Your task to perform on an android device: Open Chrome and go to settings Image 0: 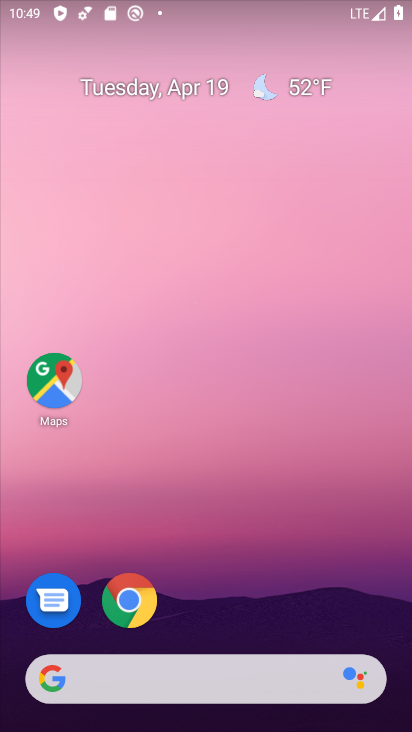
Step 0: drag from (256, 625) to (208, 79)
Your task to perform on an android device: Open Chrome and go to settings Image 1: 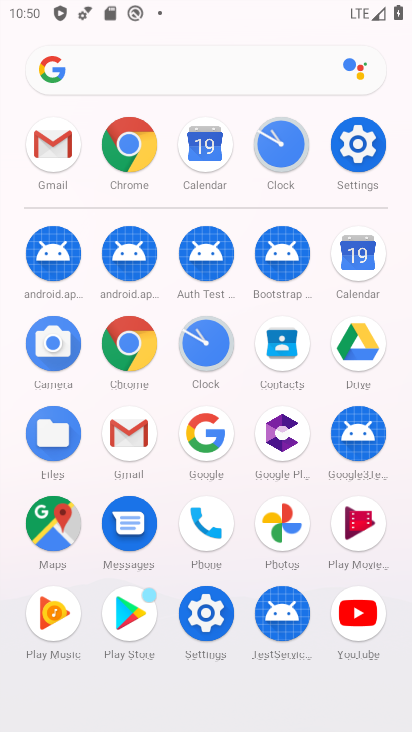
Step 1: click (131, 146)
Your task to perform on an android device: Open Chrome and go to settings Image 2: 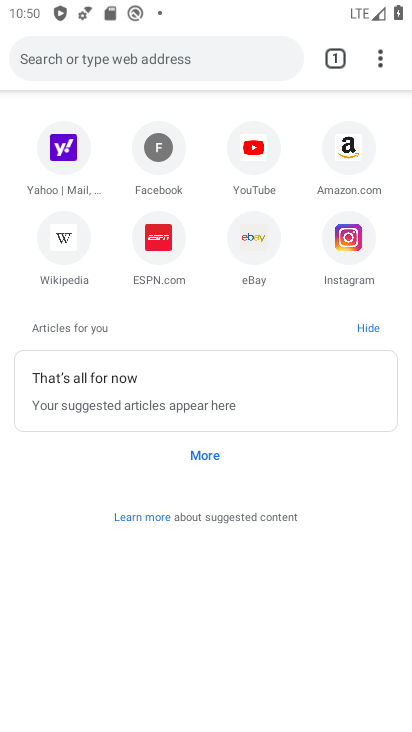
Step 2: click (375, 55)
Your task to perform on an android device: Open Chrome and go to settings Image 3: 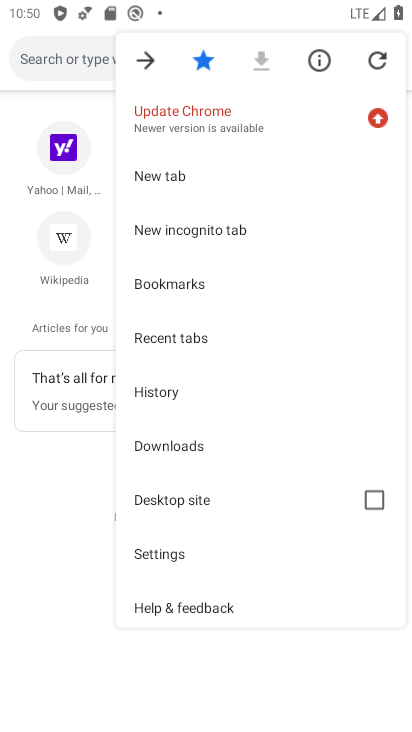
Step 3: click (222, 553)
Your task to perform on an android device: Open Chrome and go to settings Image 4: 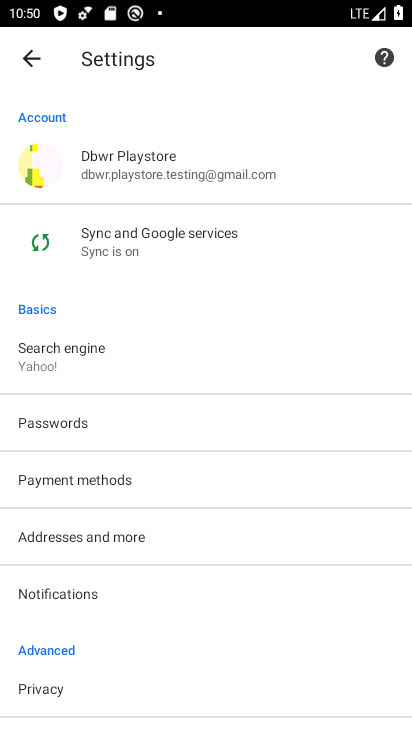
Step 4: task complete